Your task to perform on an android device: snooze an email in the gmail app Image 0: 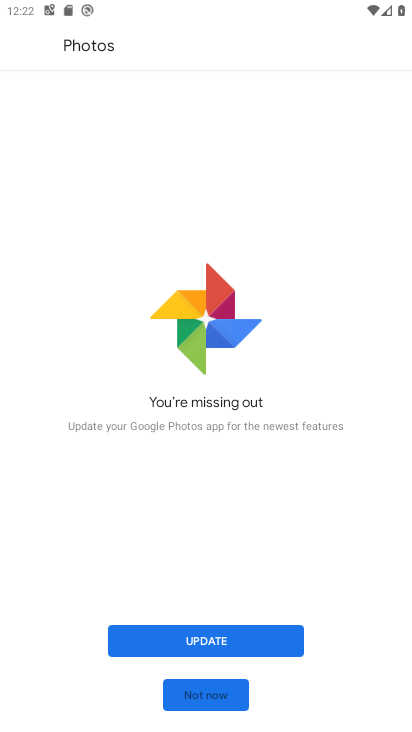
Step 0: press home button
Your task to perform on an android device: snooze an email in the gmail app Image 1: 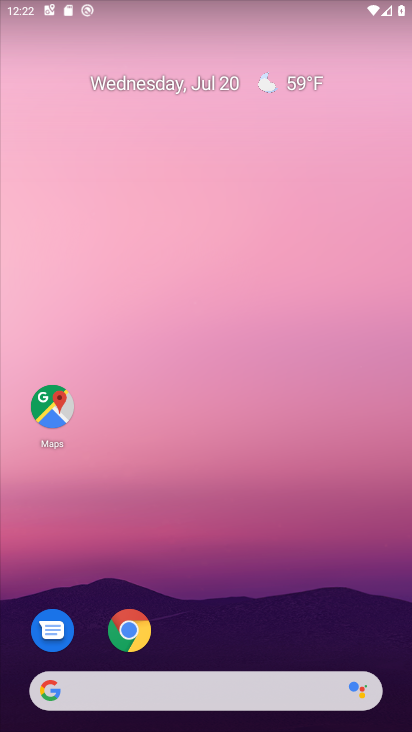
Step 1: drag from (369, 641) to (290, 44)
Your task to perform on an android device: snooze an email in the gmail app Image 2: 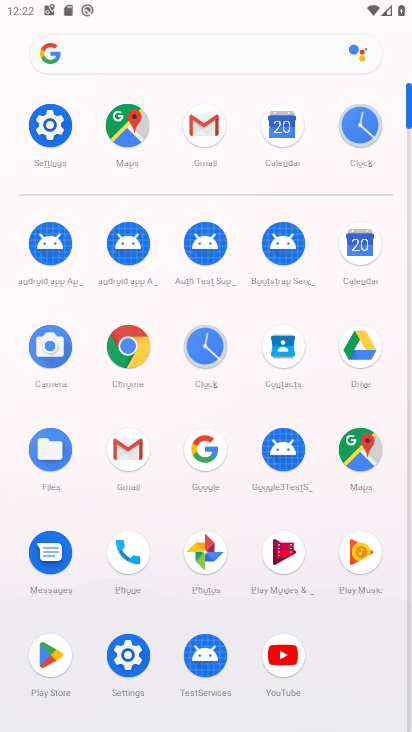
Step 2: click (128, 451)
Your task to perform on an android device: snooze an email in the gmail app Image 3: 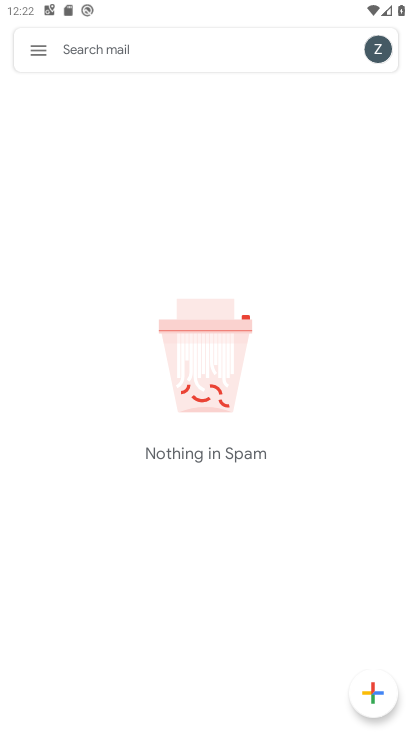
Step 3: click (32, 54)
Your task to perform on an android device: snooze an email in the gmail app Image 4: 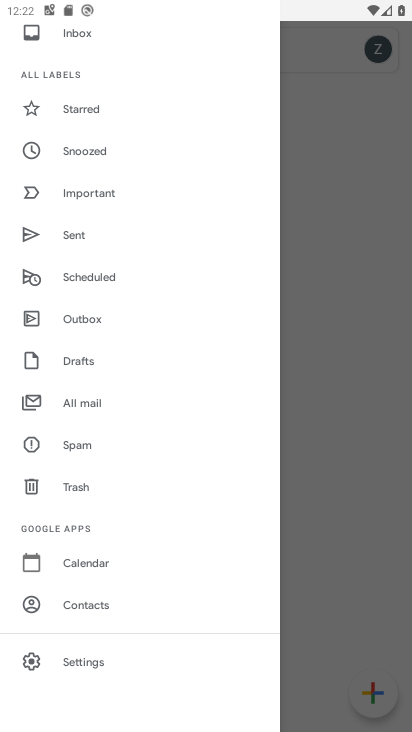
Step 4: drag from (205, 203) to (190, 421)
Your task to perform on an android device: snooze an email in the gmail app Image 5: 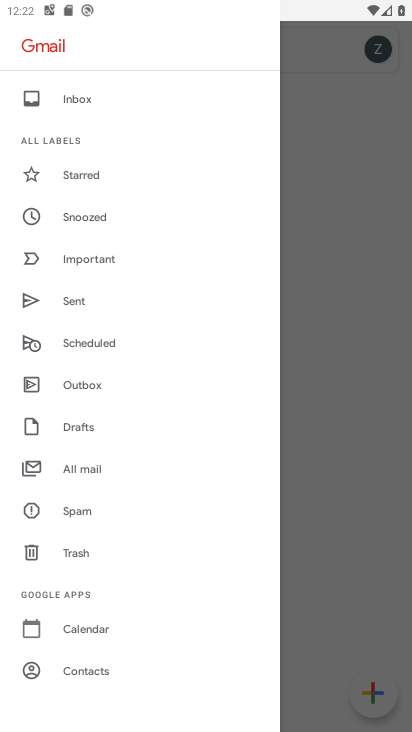
Step 5: click (73, 465)
Your task to perform on an android device: snooze an email in the gmail app Image 6: 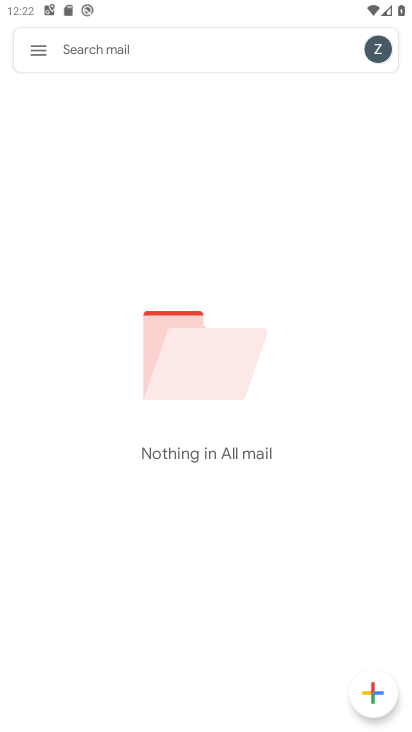
Step 6: task complete